Your task to perform on an android device: Show me the alarms in the clock app Image 0: 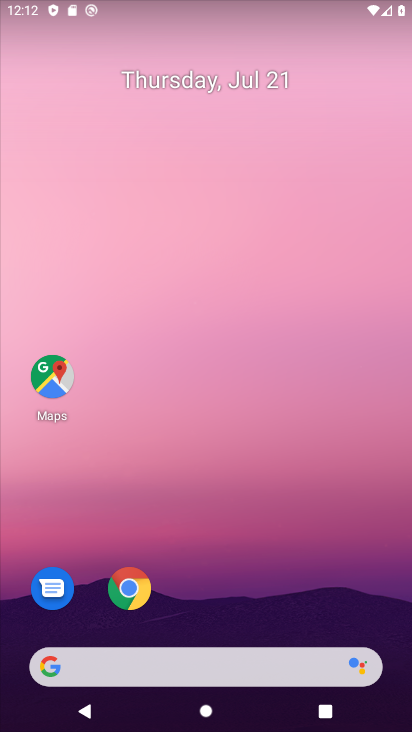
Step 0: drag from (227, 260) to (225, 221)
Your task to perform on an android device: Show me the alarms in the clock app Image 1: 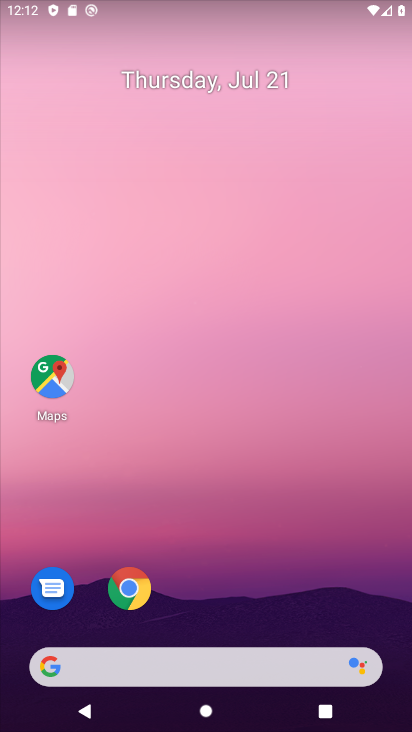
Step 1: drag from (291, 483) to (357, 26)
Your task to perform on an android device: Show me the alarms in the clock app Image 2: 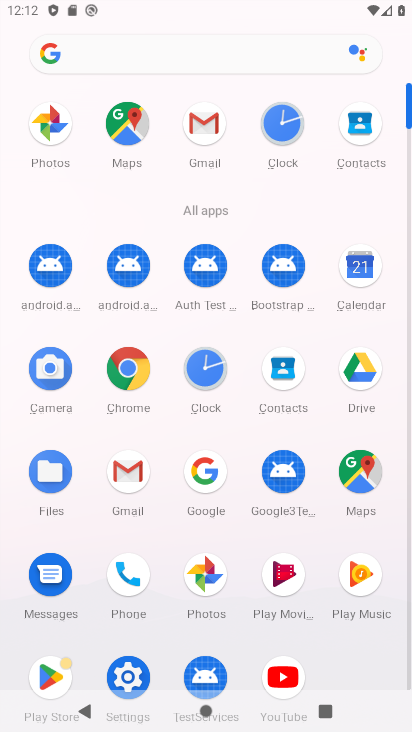
Step 2: click (285, 133)
Your task to perform on an android device: Show me the alarms in the clock app Image 3: 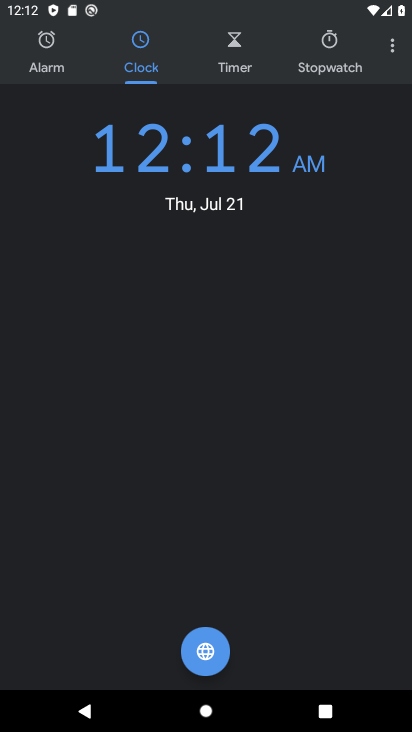
Step 3: click (53, 45)
Your task to perform on an android device: Show me the alarms in the clock app Image 4: 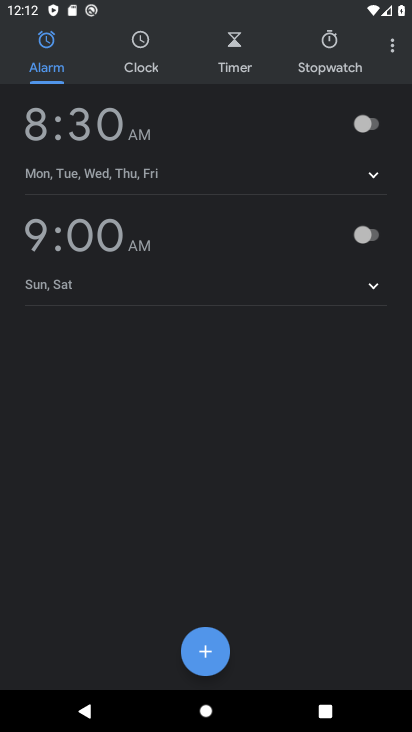
Step 4: task complete